Your task to perform on an android device: set an alarm Image 0: 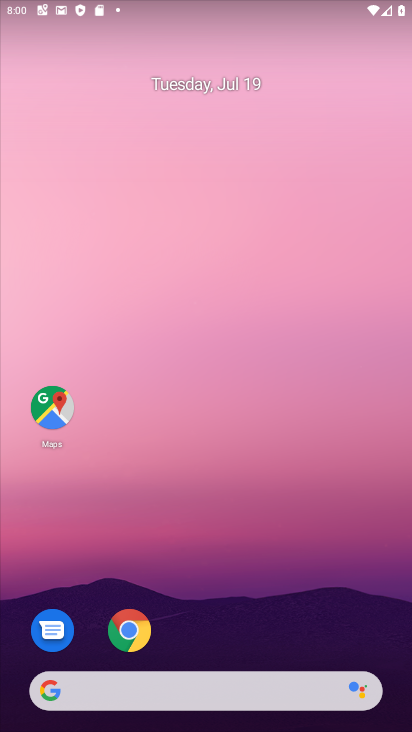
Step 0: drag from (232, 618) to (207, 2)
Your task to perform on an android device: set an alarm Image 1: 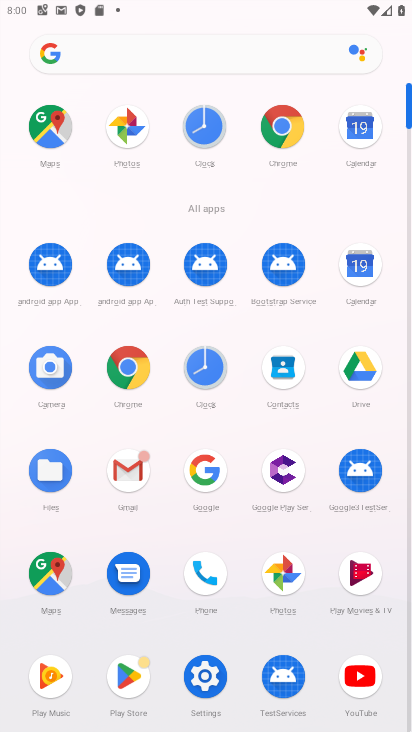
Step 1: click (207, 165)
Your task to perform on an android device: set an alarm Image 2: 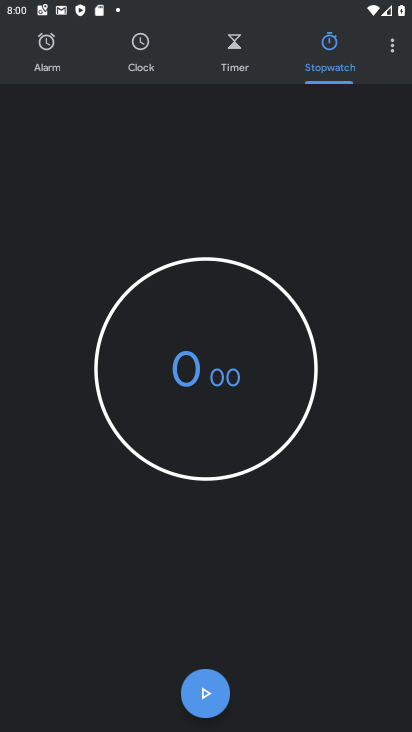
Step 2: click (45, 57)
Your task to perform on an android device: set an alarm Image 3: 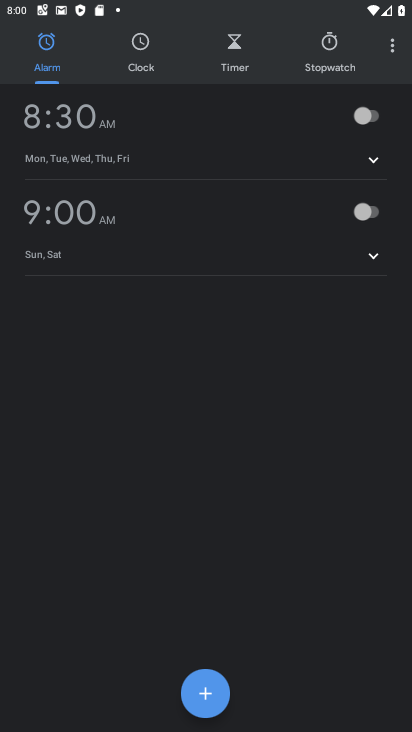
Step 3: click (381, 109)
Your task to perform on an android device: set an alarm Image 4: 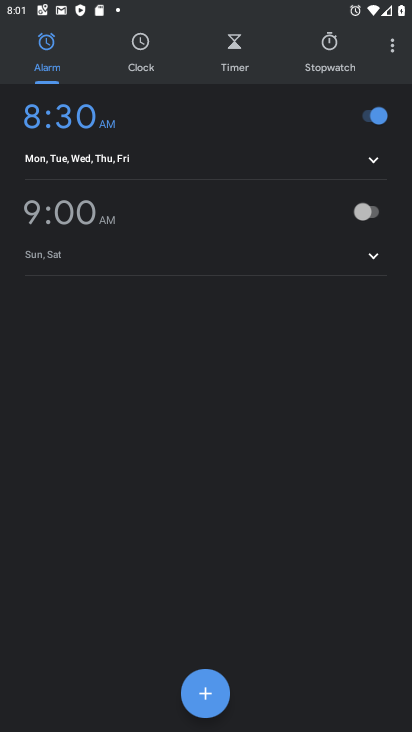
Step 4: task complete